Your task to perform on an android device: Open Google Chrome Image 0: 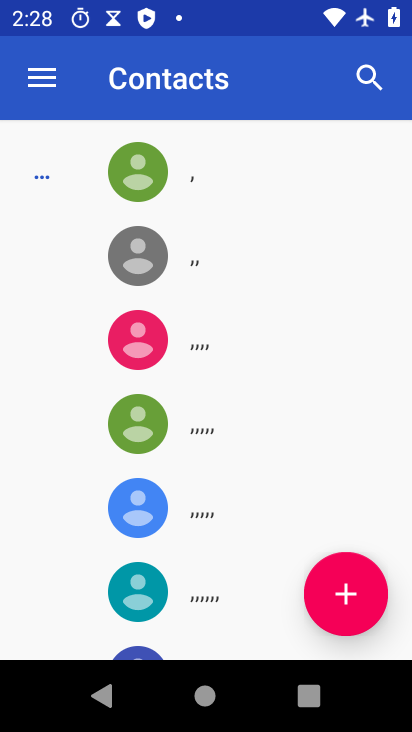
Step 0: press back button
Your task to perform on an android device: Open Google Chrome Image 1: 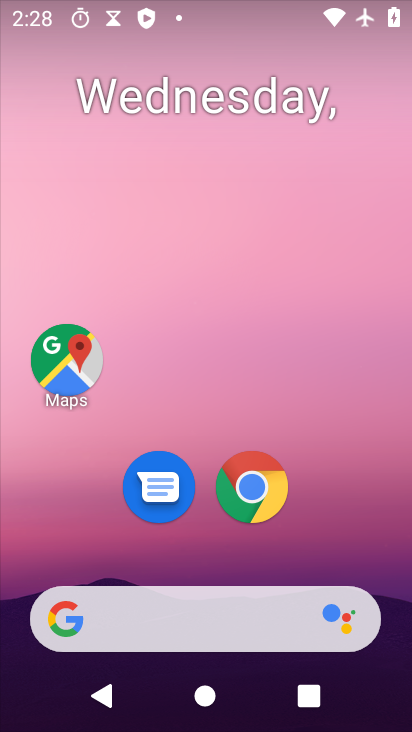
Step 1: drag from (325, 491) to (298, 277)
Your task to perform on an android device: Open Google Chrome Image 2: 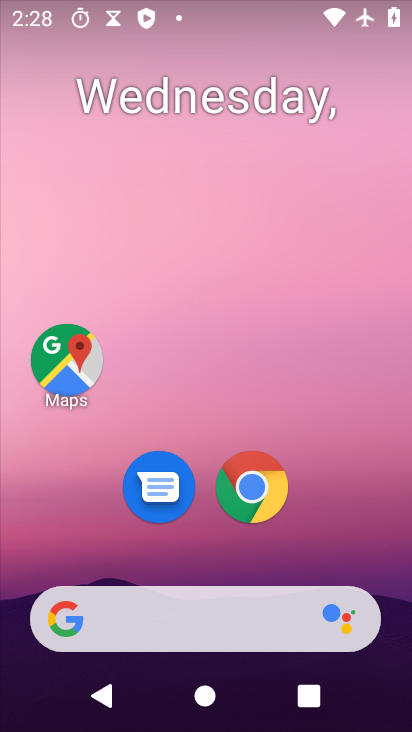
Step 2: drag from (266, 544) to (197, 319)
Your task to perform on an android device: Open Google Chrome Image 3: 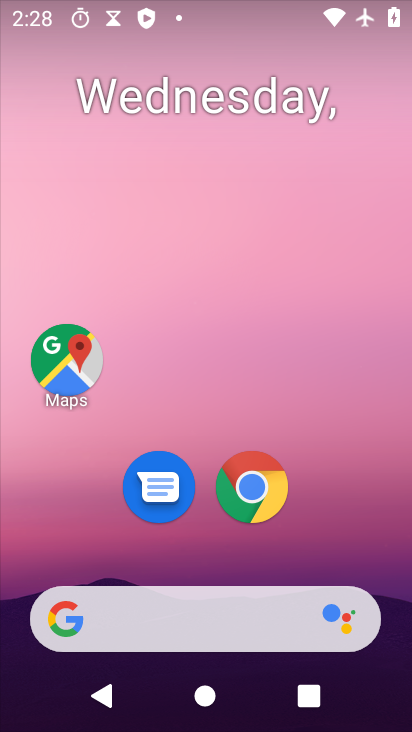
Step 3: click (198, 289)
Your task to perform on an android device: Open Google Chrome Image 4: 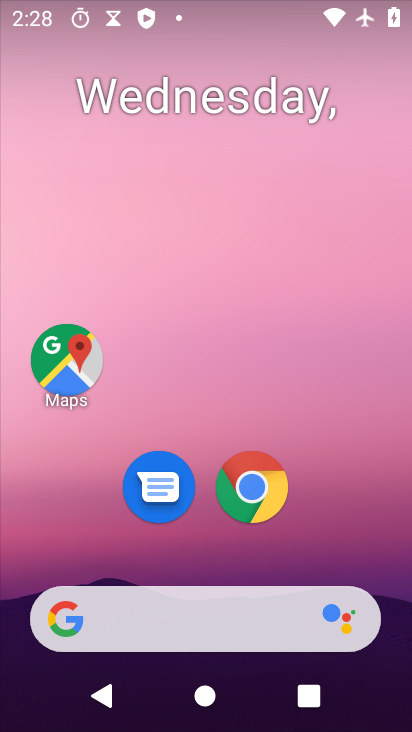
Step 4: drag from (365, 639) to (230, 272)
Your task to perform on an android device: Open Google Chrome Image 5: 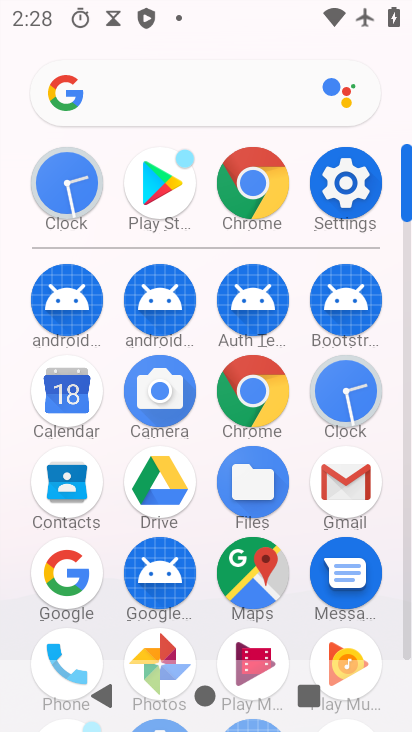
Step 5: click (241, 388)
Your task to perform on an android device: Open Google Chrome Image 6: 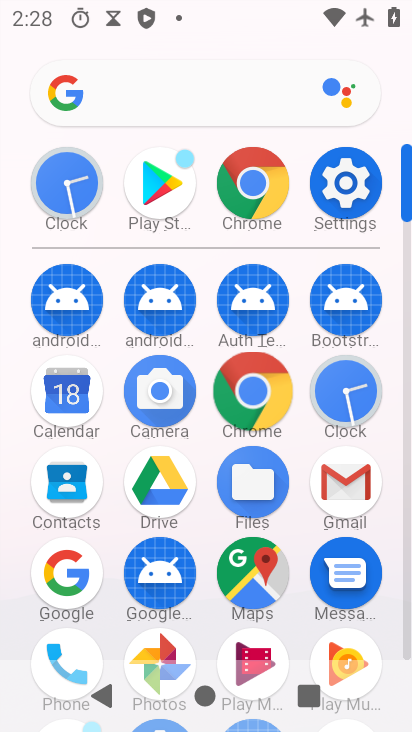
Step 6: click (242, 388)
Your task to perform on an android device: Open Google Chrome Image 7: 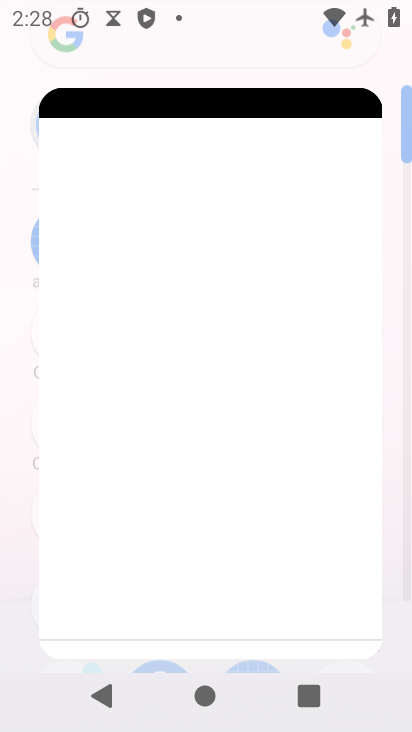
Step 7: click (242, 385)
Your task to perform on an android device: Open Google Chrome Image 8: 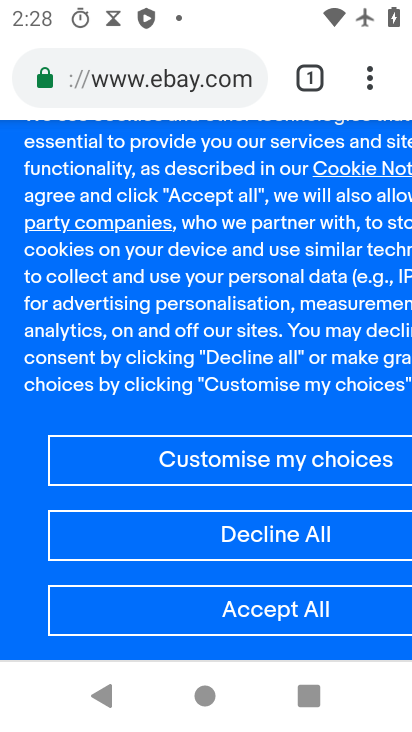
Step 8: drag from (365, 75) to (273, 305)
Your task to perform on an android device: Open Google Chrome Image 9: 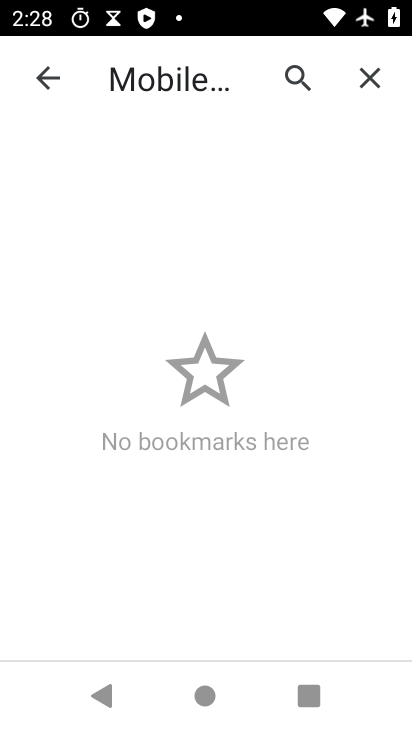
Step 9: click (33, 71)
Your task to perform on an android device: Open Google Chrome Image 10: 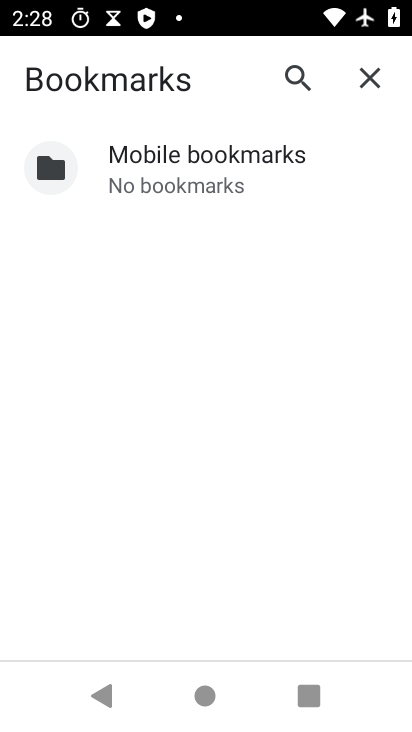
Step 10: task complete